Your task to perform on an android device: Go to privacy settings Image 0: 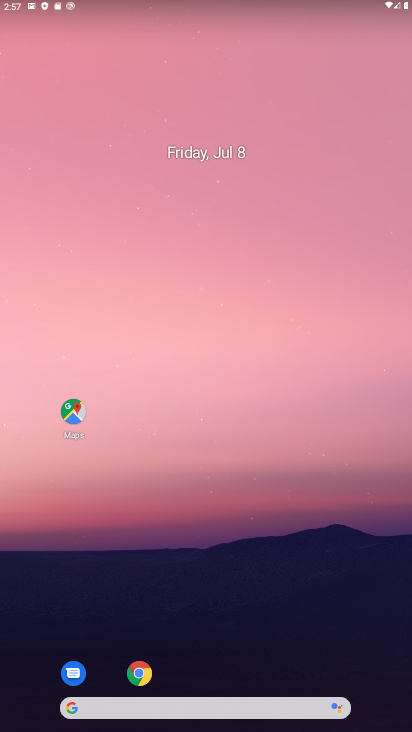
Step 0: drag from (176, 714) to (111, 31)
Your task to perform on an android device: Go to privacy settings Image 1: 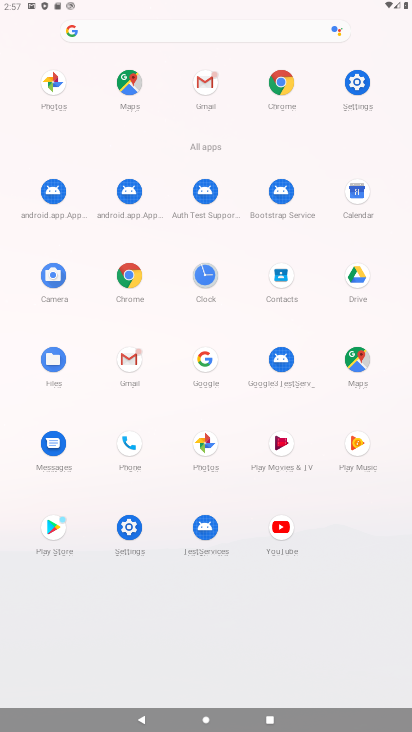
Step 1: click (362, 77)
Your task to perform on an android device: Go to privacy settings Image 2: 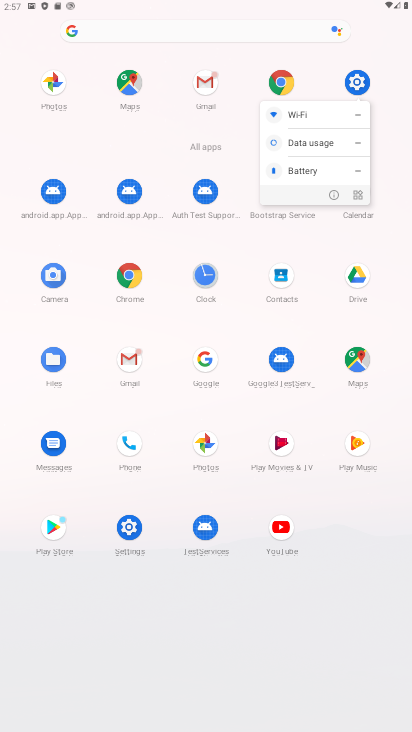
Step 2: click (351, 87)
Your task to perform on an android device: Go to privacy settings Image 3: 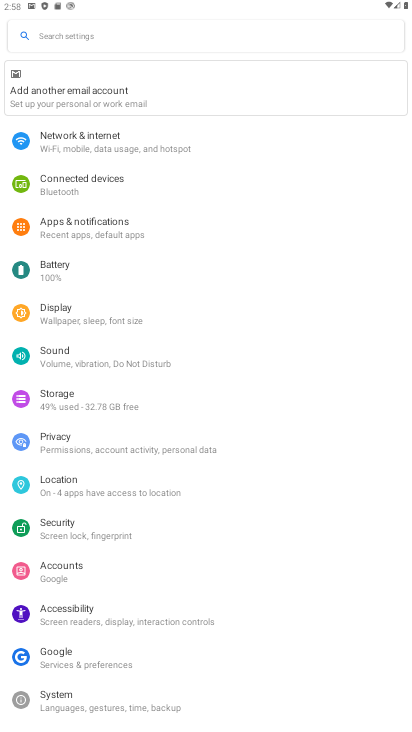
Step 3: click (133, 451)
Your task to perform on an android device: Go to privacy settings Image 4: 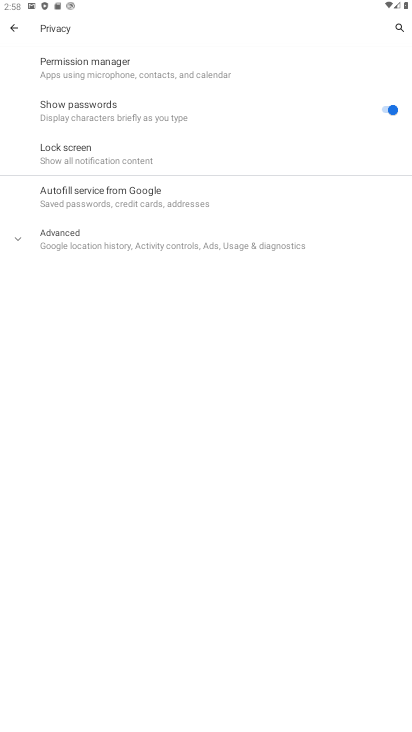
Step 4: task complete